Your task to perform on an android device: What's on my calendar today? Image 0: 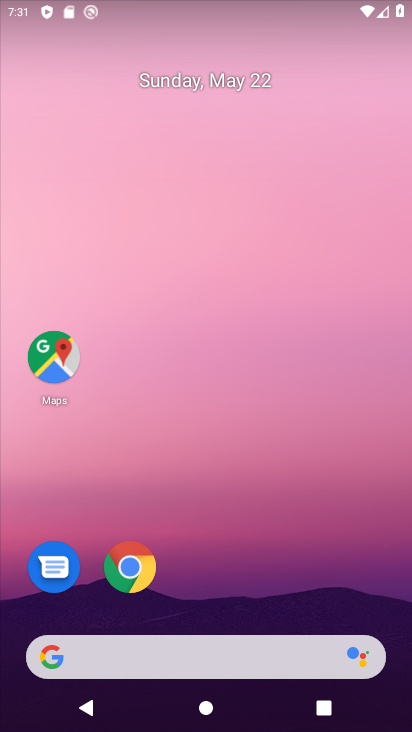
Step 0: drag from (216, 579) to (245, 141)
Your task to perform on an android device: What's on my calendar today? Image 1: 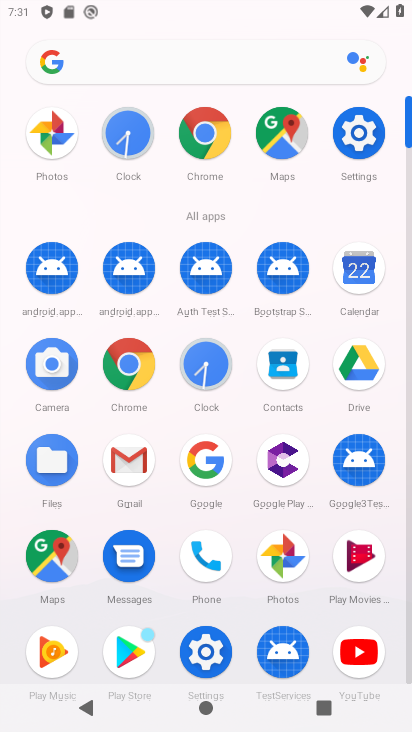
Step 1: click (354, 263)
Your task to perform on an android device: What's on my calendar today? Image 2: 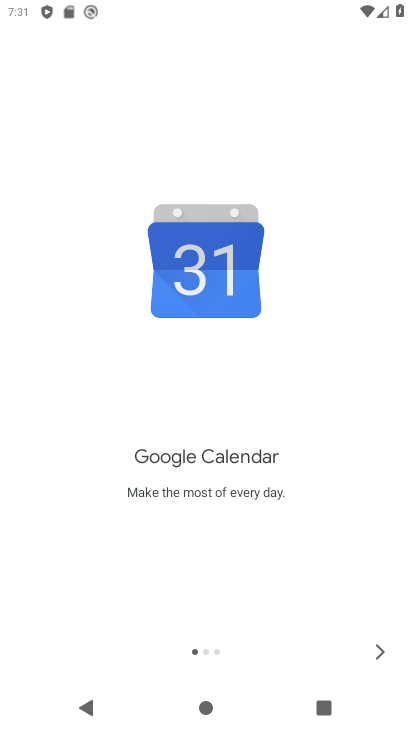
Step 2: click (387, 645)
Your task to perform on an android device: What's on my calendar today? Image 3: 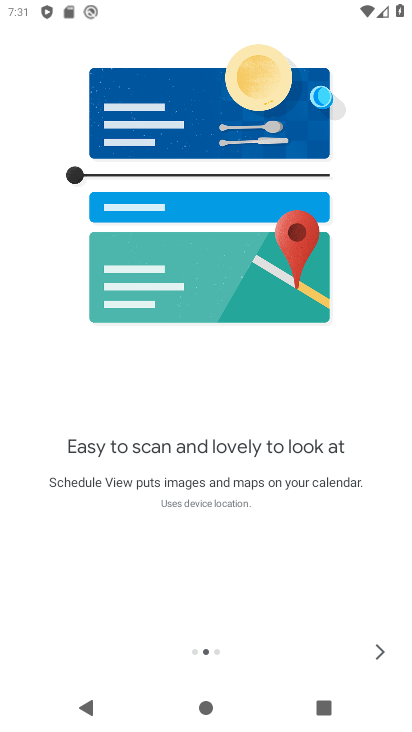
Step 3: click (383, 655)
Your task to perform on an android device: What's on my calendar today? Image 4: 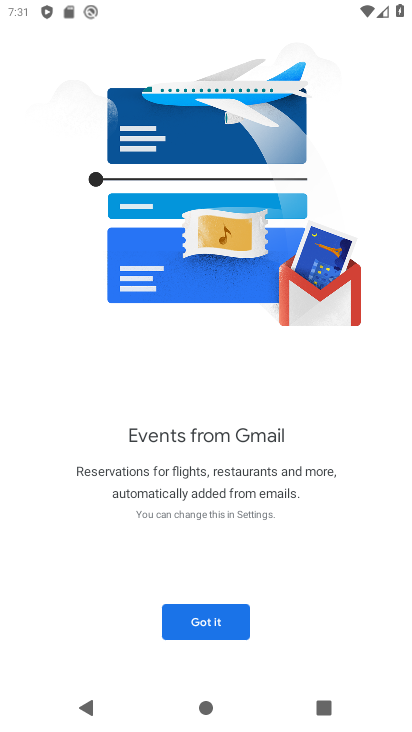
Step 4: click (212, 624)
Your task to perform on an android device: What's on my calendar today? Image 5: 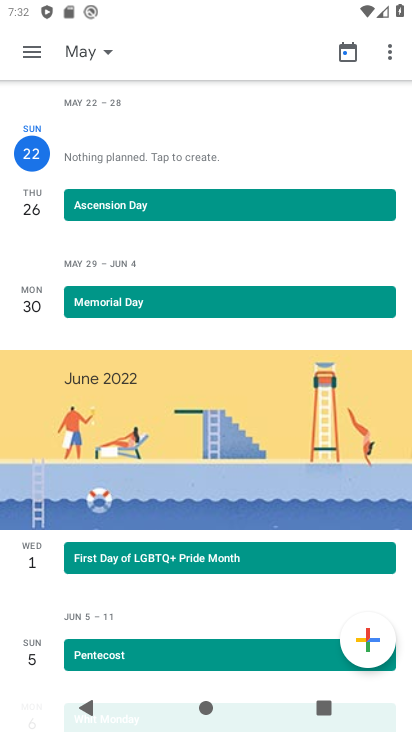
Step 5: task complete